Your task to perform on an android device: turn off picture-in-picture Image 0: 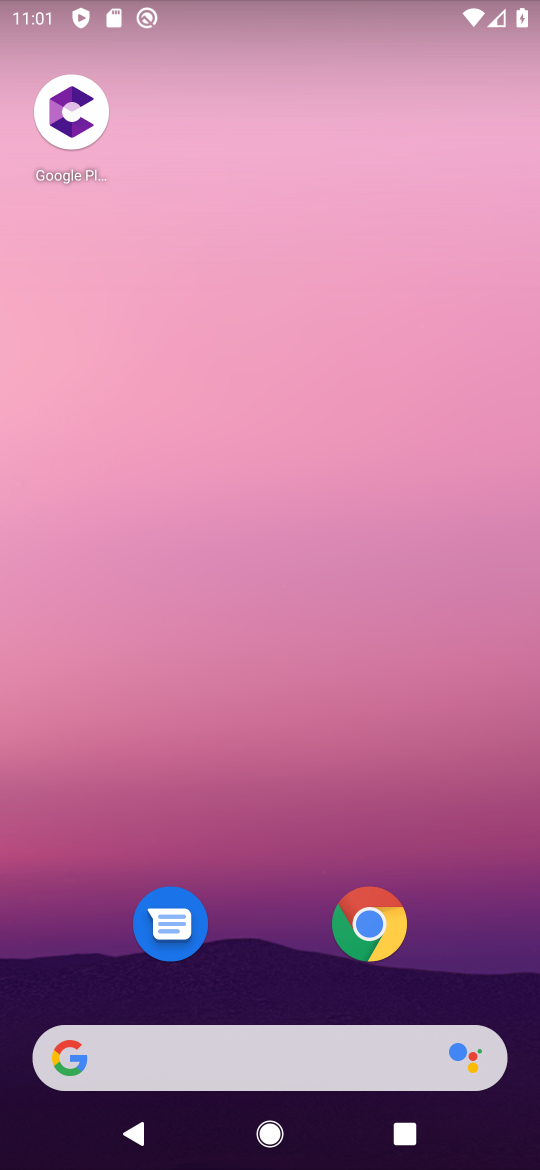
Step 0: drag from (246, 978) to (525, 267)
Your task to perform on an android device: turn off picture-in-picture Image 1: 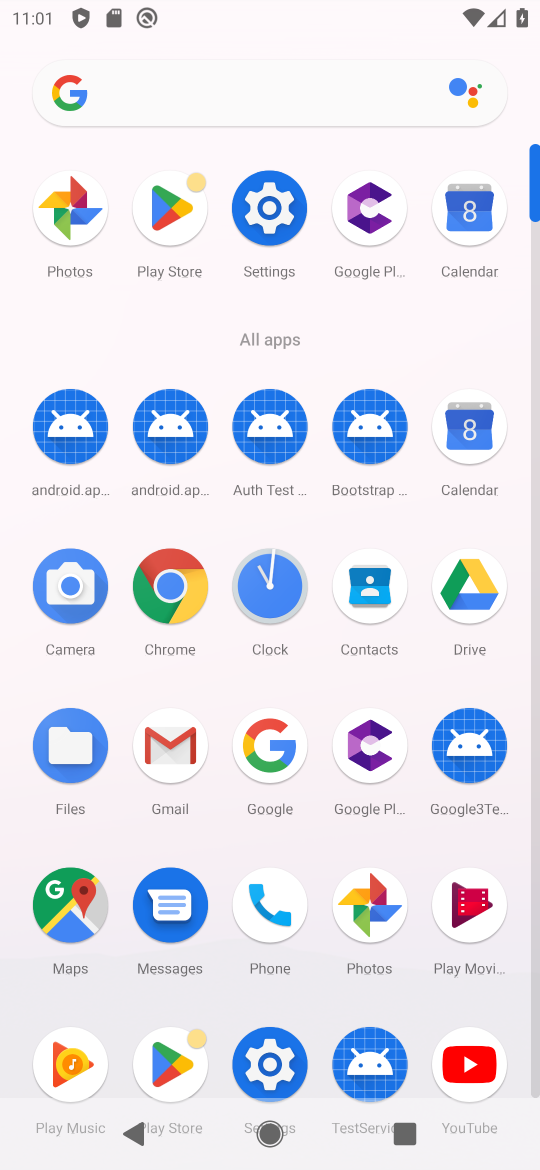
Step 1: click (258, 250)
Your task to perform on an android device: turn off picture-in-picture Image 2: 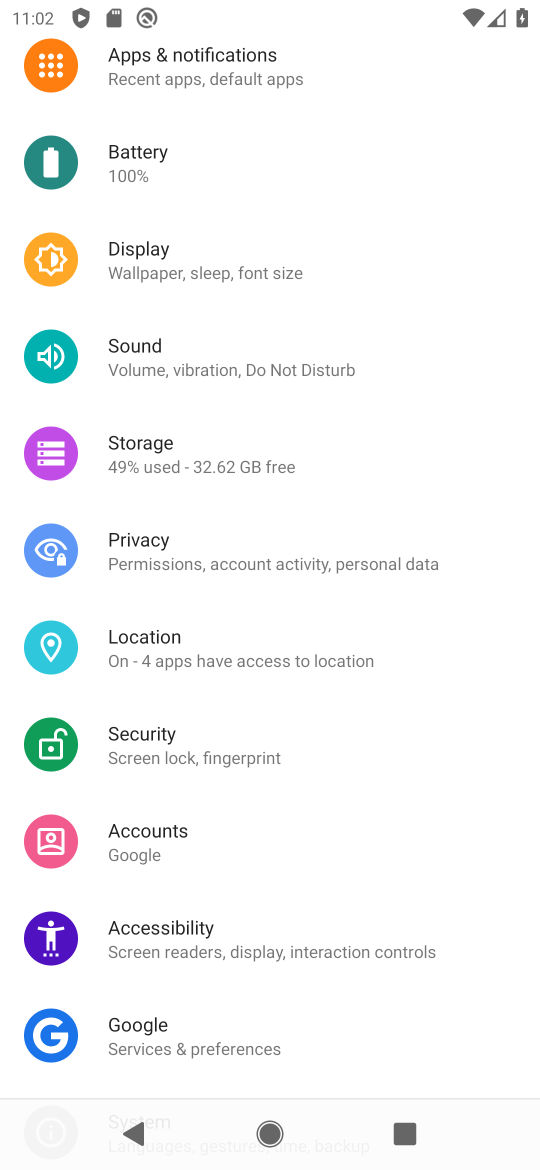
Step 2: drag from (279, 479) to (77, 1159)
Your task to perform on an android device: turn off picture-in-picture Image 3: 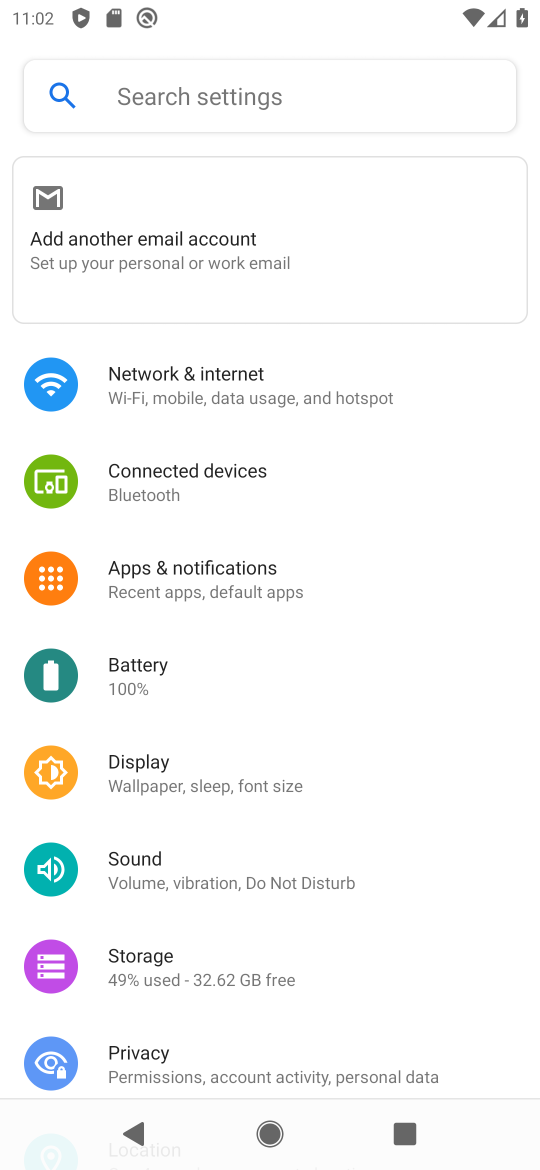
Step 3: click (256, 563)
Your task to perform on an android device: turn off picture-in-picture Image 4: 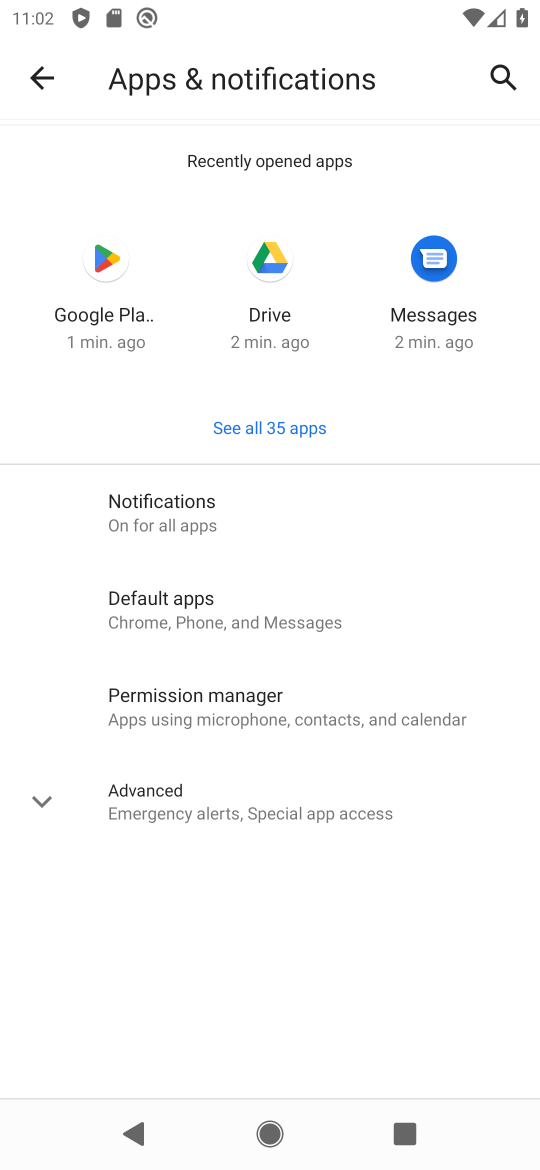
Step 4: click (205, 818)
Your task to perform on an android device: turn off picture-in-picture Image 5: 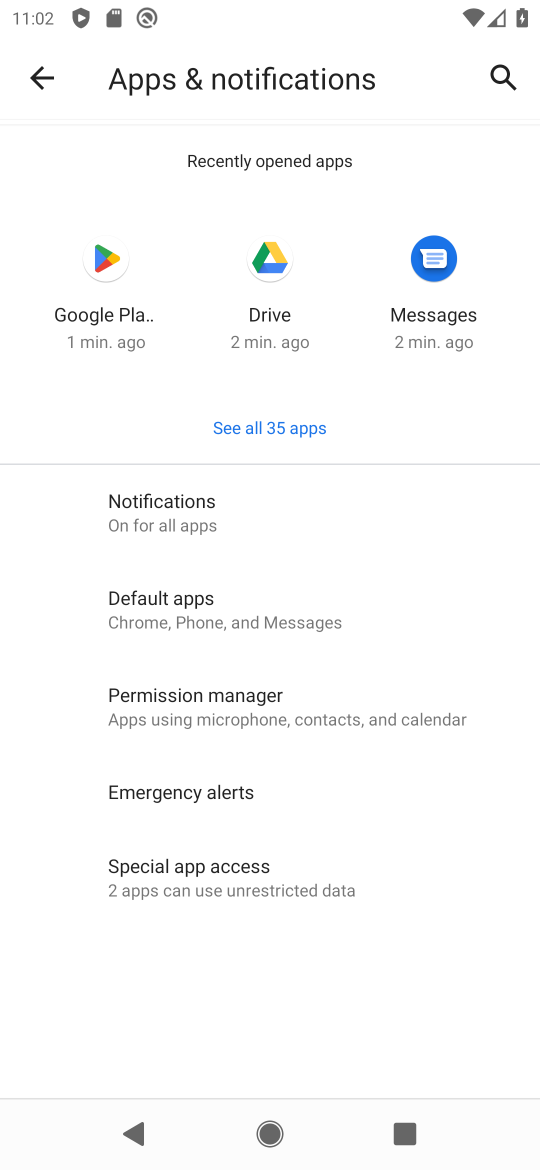
Step 5: click (212, 910)
Your task to perform on an android device: turn off picture-in-picture Image 6: 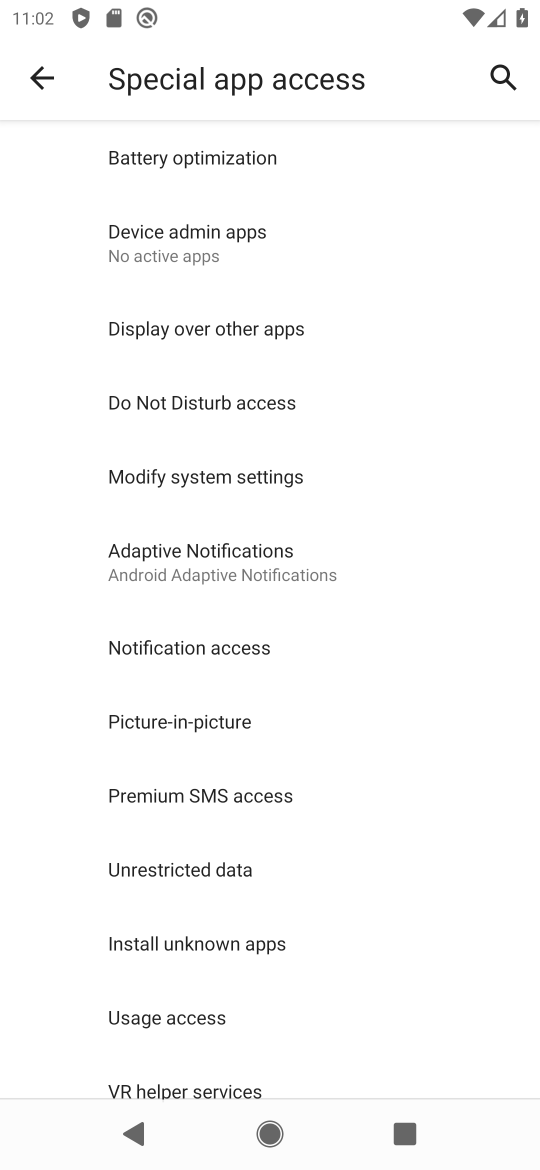
Step 6: click (171, 729)
Your task to perform on an android device: turn off picture-in-picture Image 7: 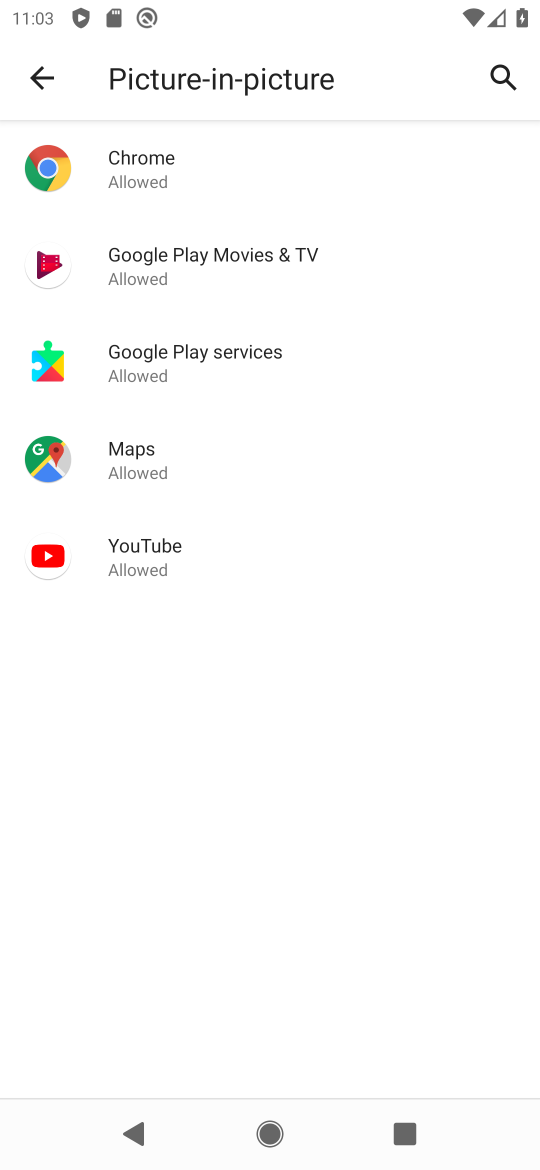
Step 7: task complete